Your task to perform on an android device: Open Youtube and go to the subscriptions tab Image 0: 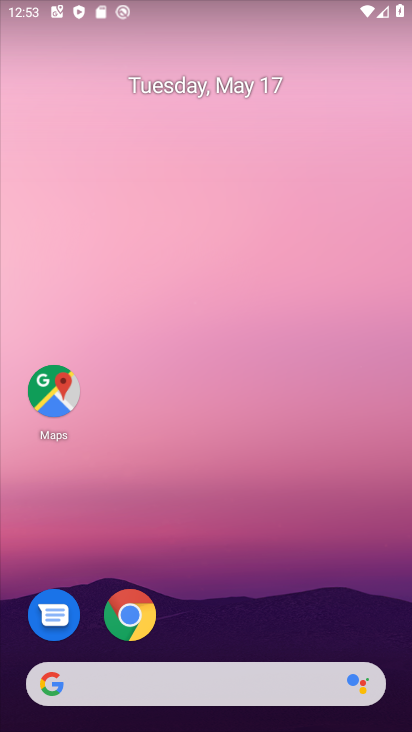
Step 0: drag from (278, 617) to (240, 98)
Your task to perform on an android device: Open Youtube and go to the subscriptions tab Image 1: 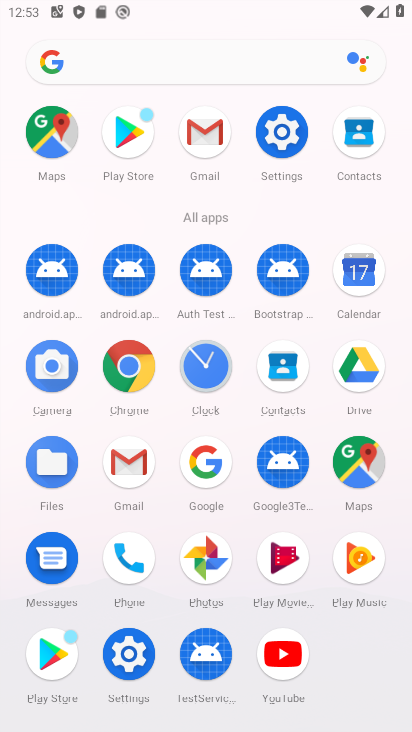
Step 1: drag from (242, 536) to (254, 298)
Your task to perform on an android device: Open Youtube and go to the subscriptions tab Image 2: 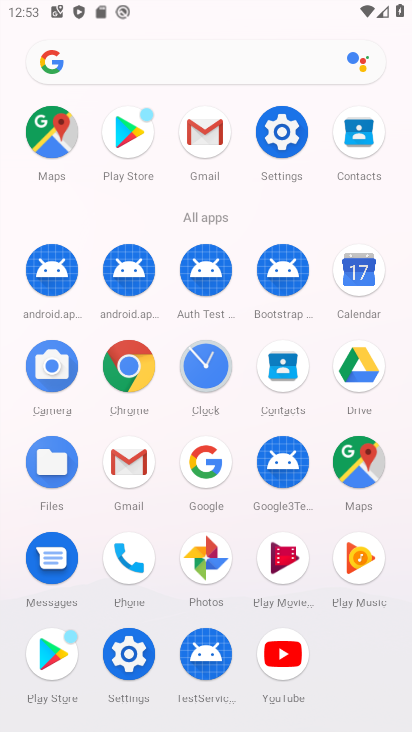
Step 2: click (288, 653)
Your task to perform on an android device: Open Youtube and go to the subscriptions tab Image 3: 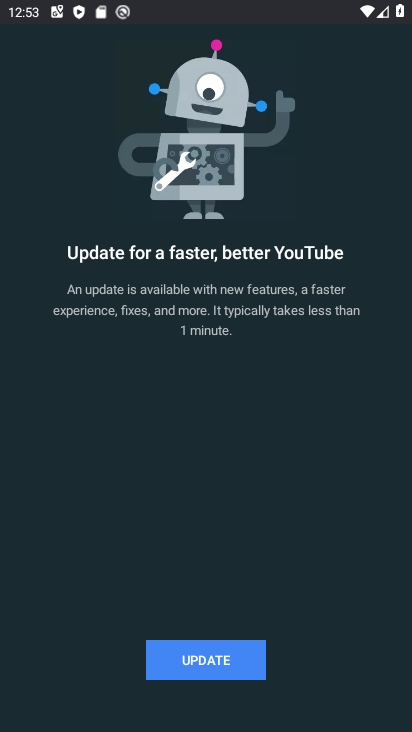
Step 3: click (206, 658)
Your task to perform on an android device: Open Youtube and go to the subscriptions tab Image 4: 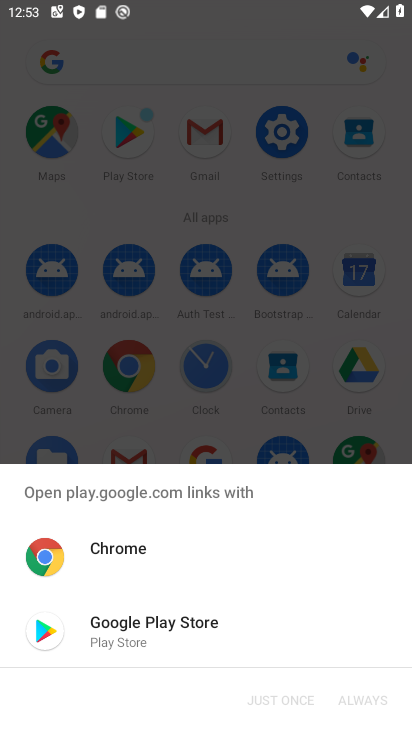
Step 4: click (131, 619)
Your task to perform on an android device: Open Youtube and go to the subscriptions tab Image 5: 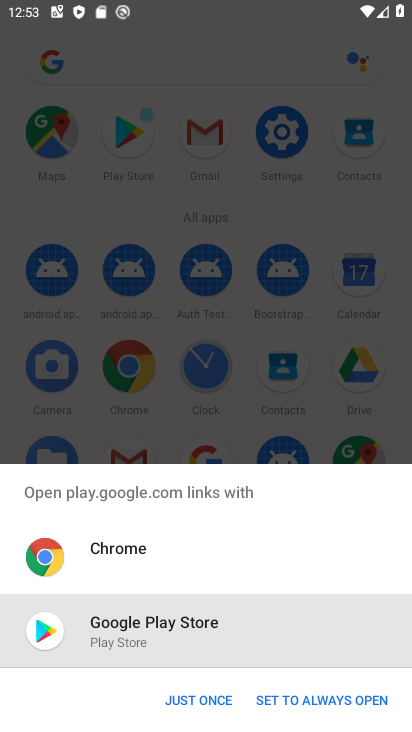
Step 5: click (191, 702)
Your task to perform on an android device: Open Youtube and go to the subscriptions tab Image 6: 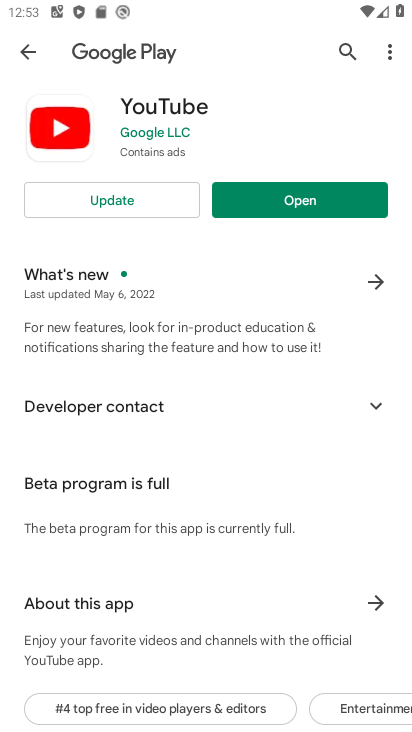
Step 6: click (129, 198)
Your task to perform on an android device: Open Youtube and go to the subscriptions tab Image 7: 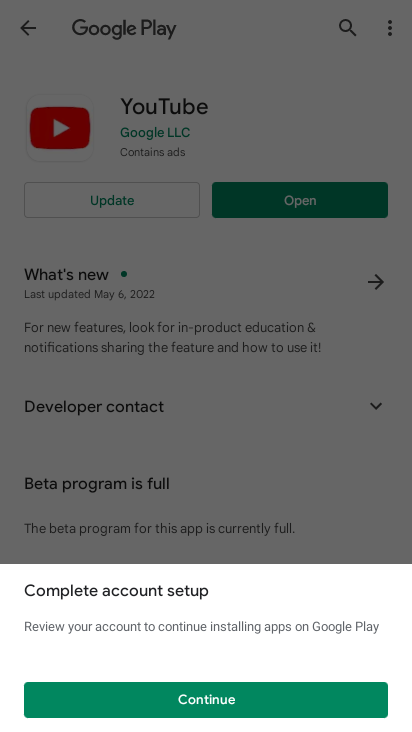
Step 7: click (214, 701)
Your task to perform on an android device: Open Youtube and go to the subscriptions tab Image 8: 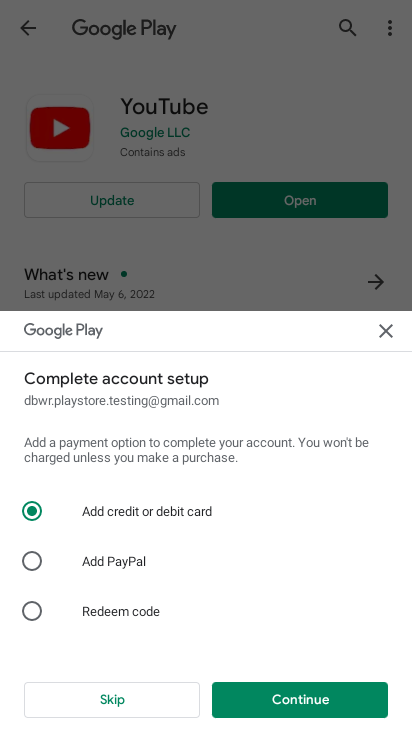
Step 8: click (173, 704)
Your task to perform on an android device: Open Youtube and go to the subscriptions tab Image 9: 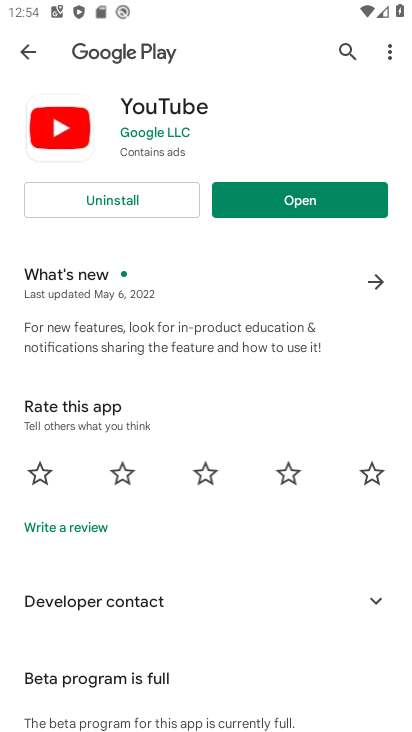
Step 9: click (294, 201)
Your task to perform on an android device: Open Youtube and go to the subscriptions tab Image 10: 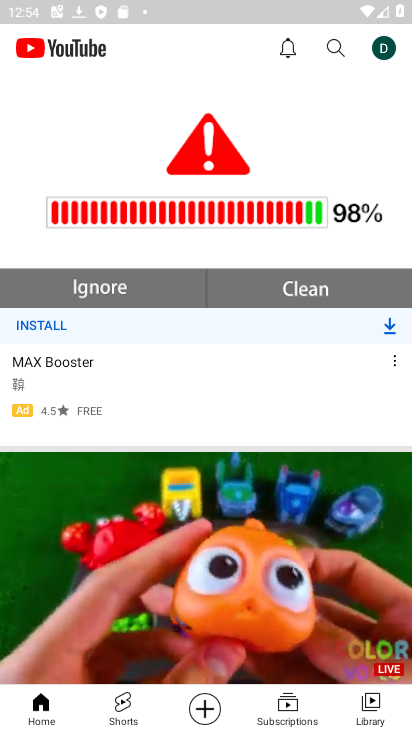
Step 10: click (286, 703)
Your task to perform on an android device: Open Youtube and go to the subscriptions tab Image 11: 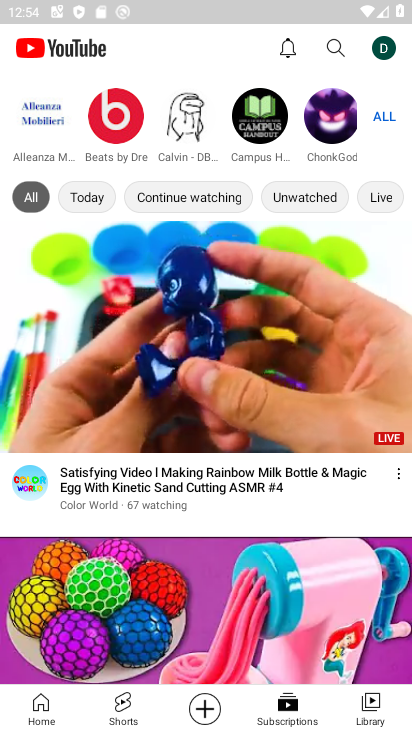
Step 11: task complete